Your task to perform on an android device: check storage Image 0: 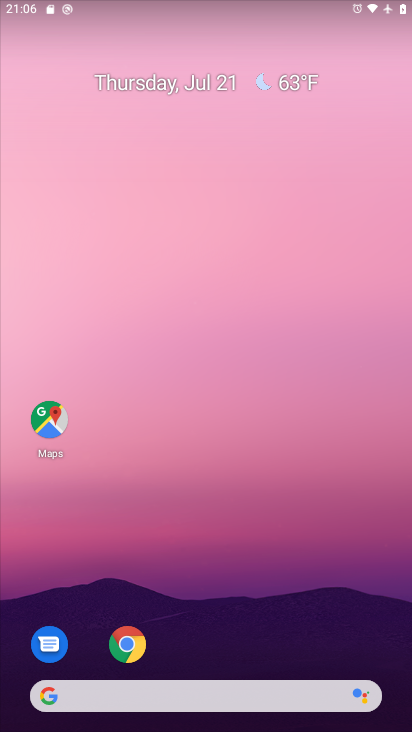
Step 0: drag from (219, 663) to (219, 164)
Your task to perform on an android device: check storage Image 1: 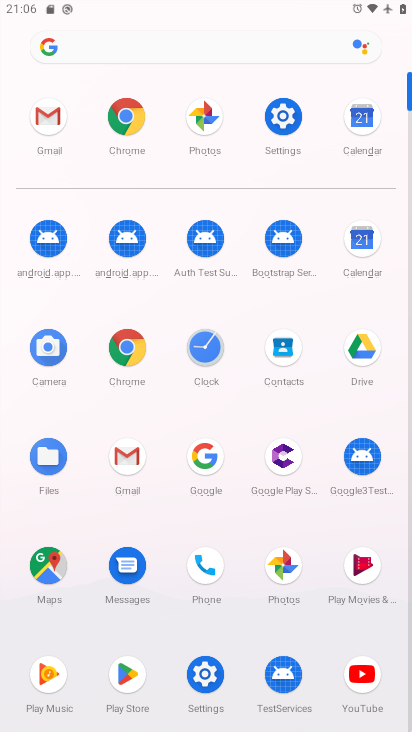
Step 1: click (277, 108)
Your task to perform on an android device: check storage Image 2: 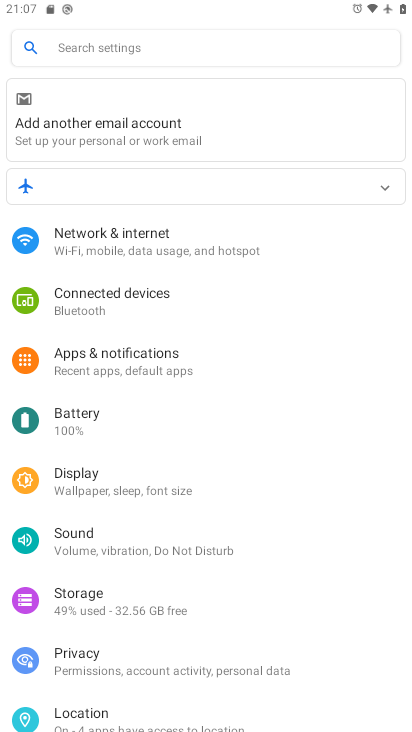
Step 2: click (139, 609)
Your task to perform on an android device: check storage Image 3: 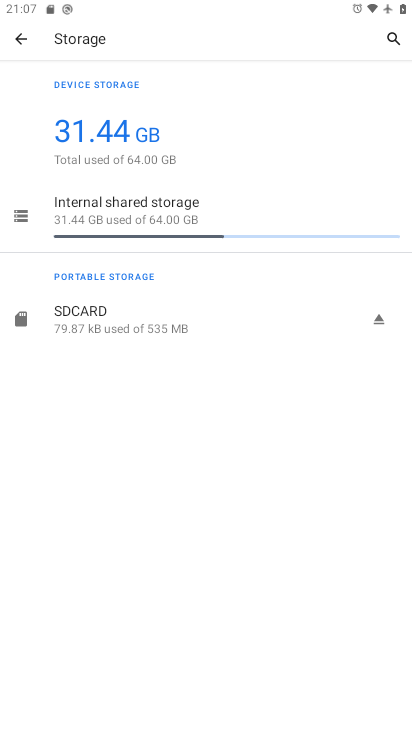
Step 3: task complete